Your task to perform on an android device: open the mobile data screen to see how much data has been used Image 0: 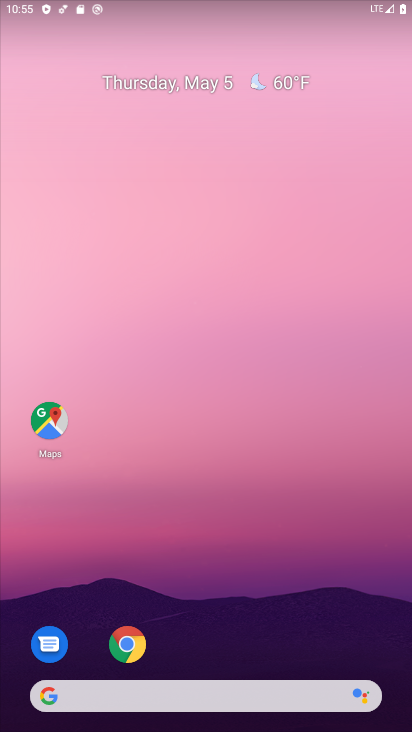
Step 0: drag from (375, 628) to (331, 193)
Your task to perform on an android device: open the mobile data screen to see how much data has been used Image 1: 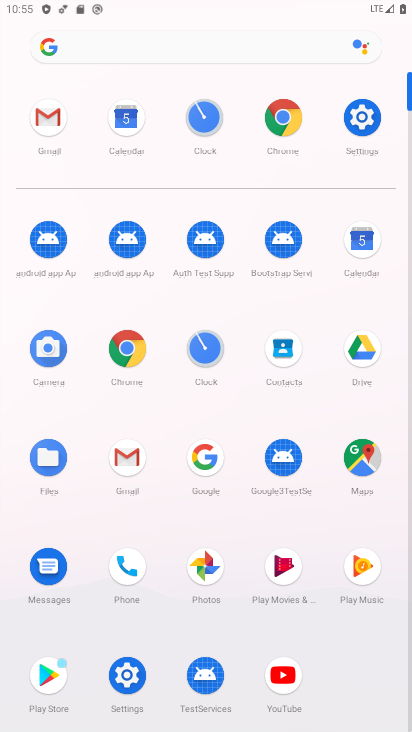
Step 1: click (360, 123)
Your task to perform on an android device: open the mobile data screen to see how much data has been used Image 2: 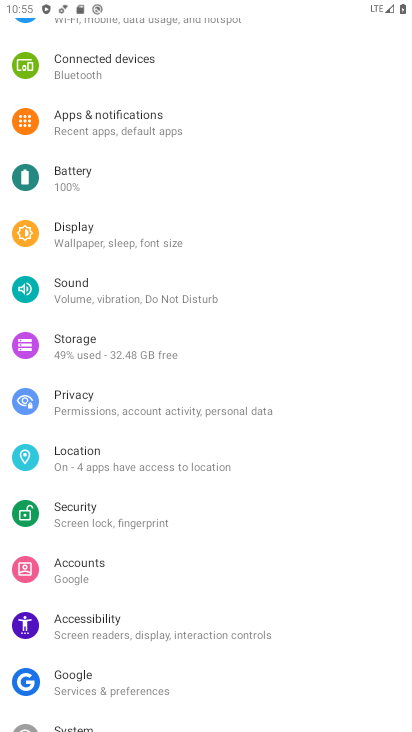
Step 2: drag from (295, 149) to (275, 504)
Your task to perform on an android device: open the mobile data screen to see how much data has been used Image 3: 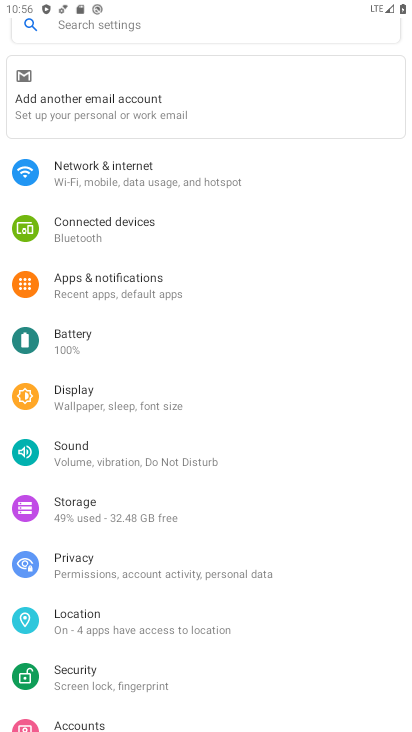
Step 3: click (163, 175)
Your task to perform on an android device: open the mobile data screen to see how much data has been used Image 4: 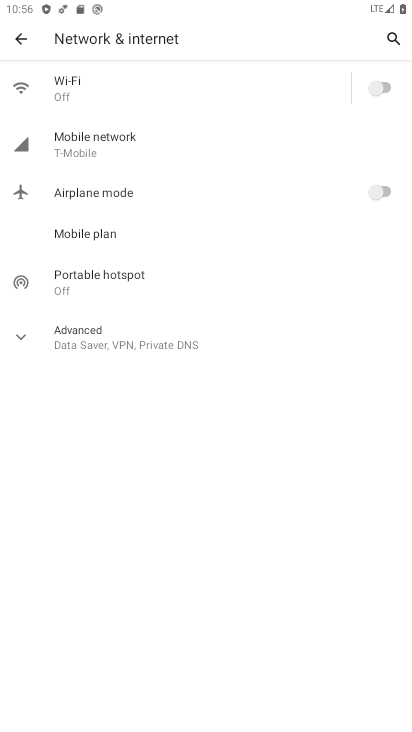
Step 4: click (153, 140)
Your task to perform on an android device: open the mobile data screen to see how much data has been used Image 5: 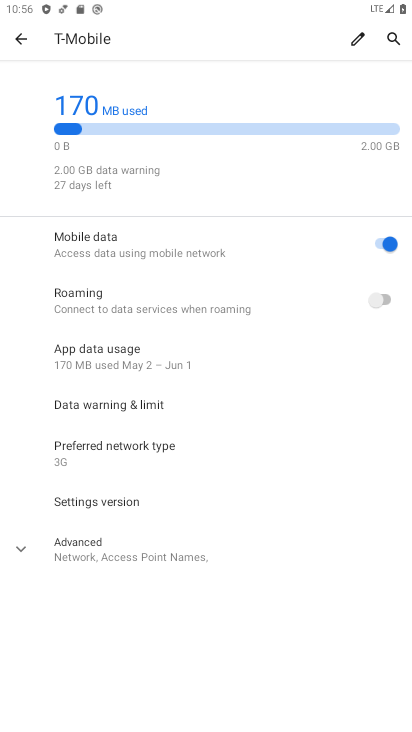
Step 5: click (102, 407)
Your task to perform on an android device: open the mobile data screen to see how much data has been used Image 6: 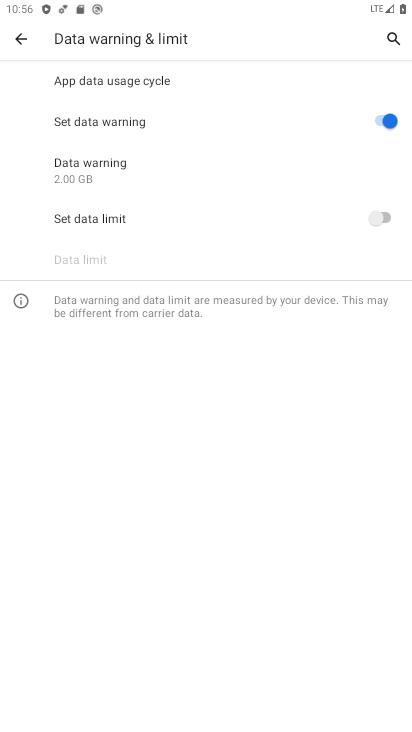
Step 6: task complete